Your task to perform on an android device: Go to notification settings Image 0: 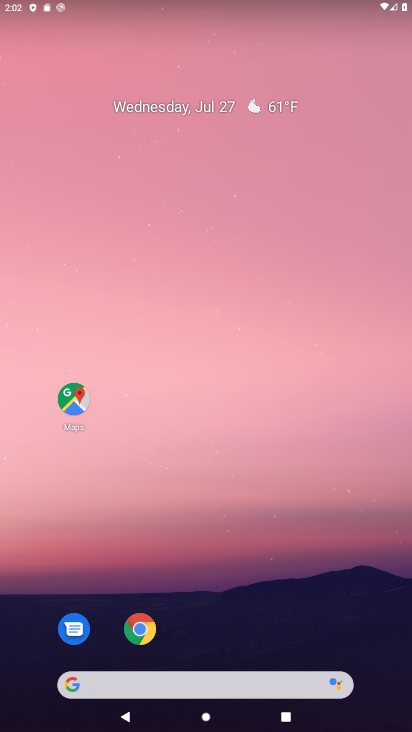
Step 0: drag from (147, 695) to (205, 58)
Your task to perform on an android device: Go to notification settings Image 1: 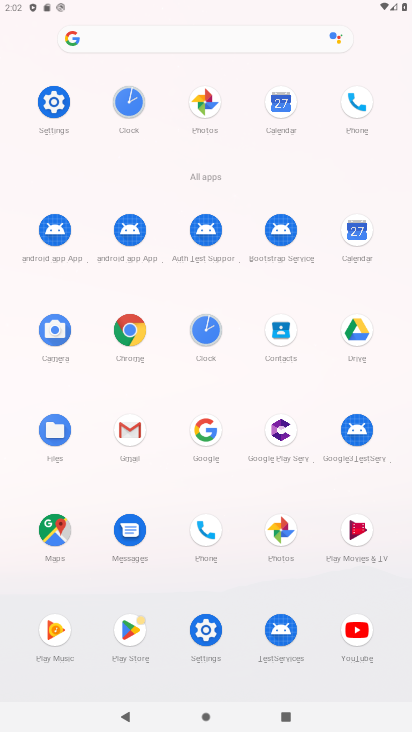
Step 1: click (206, 631)
Your task to perform on an android device: Go to notification settings Image 2: 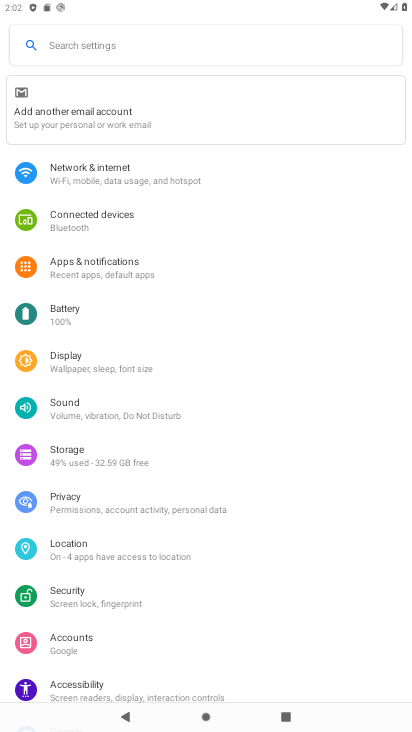
Step 2: click (73, 261)
Your task to perform on an android device: Go to notification settings Image 3: 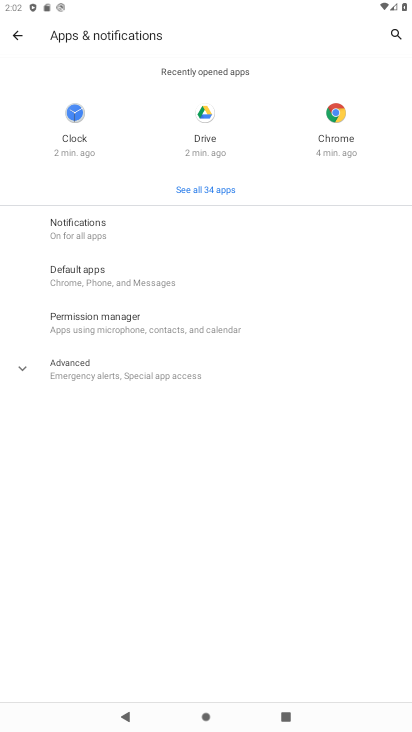
Step 3: click (91, 231)
Your task to perform on an android device: Go to notification settings Image 4: 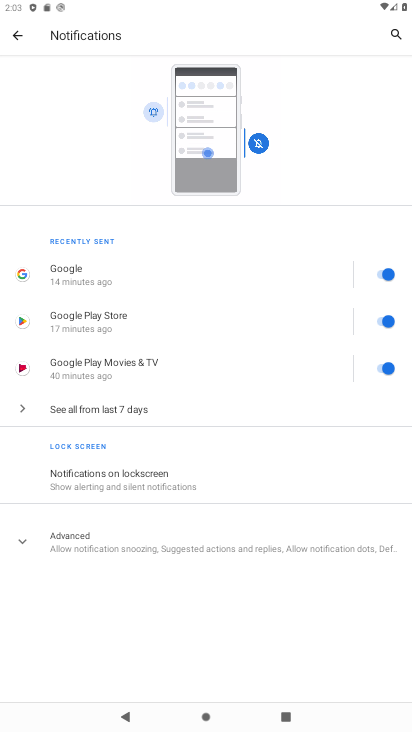
Step 4: task complete